Your task to perform on an android device: What is the recent news? Image 0: 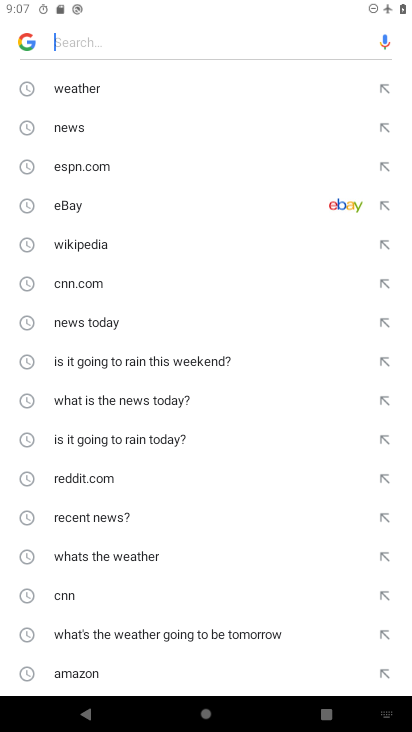
Step 0: click (57, 128)
Your task to perform on an android device: What is the recent news? Image 1: 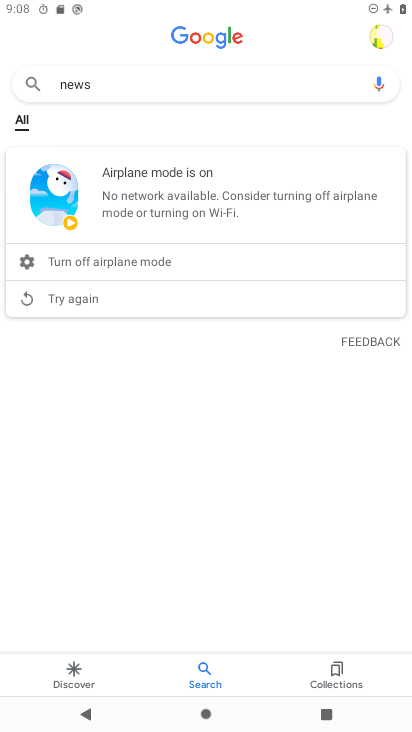
Step 1: task complete